Your task to perform on an android device: toggle notification dots Image 0: 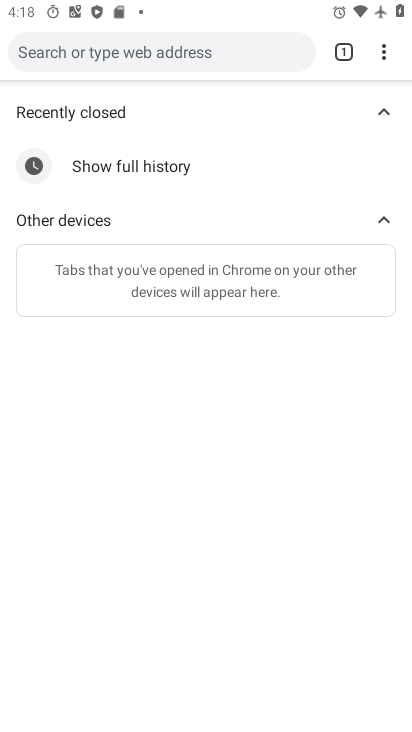
Step 0: press back button
Your task to perform on an android device: toggle notification dots Image 1: 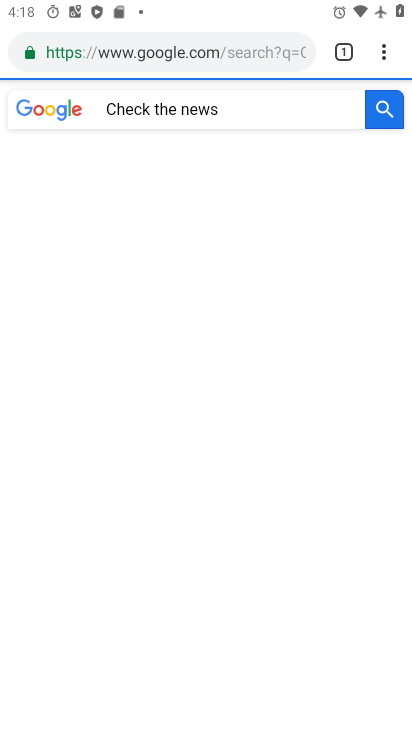
Step 1: press home button
Your task to perform on an android device: toggle notification dots Image 2: 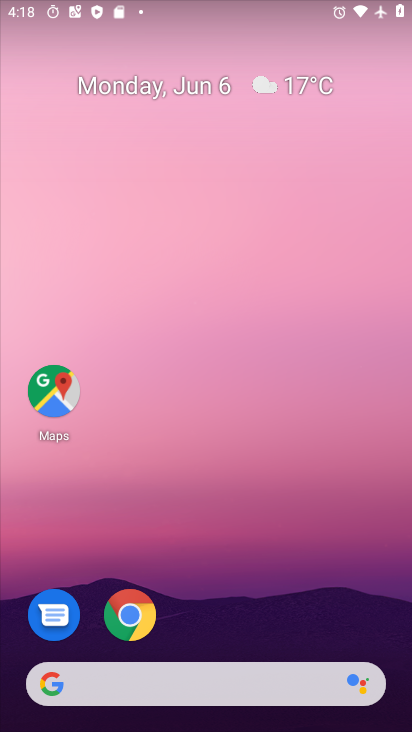
Step 2: drag from (293, 605) to (283, 65)
Your task to perform on an android device: toggle notification dots Image 3: 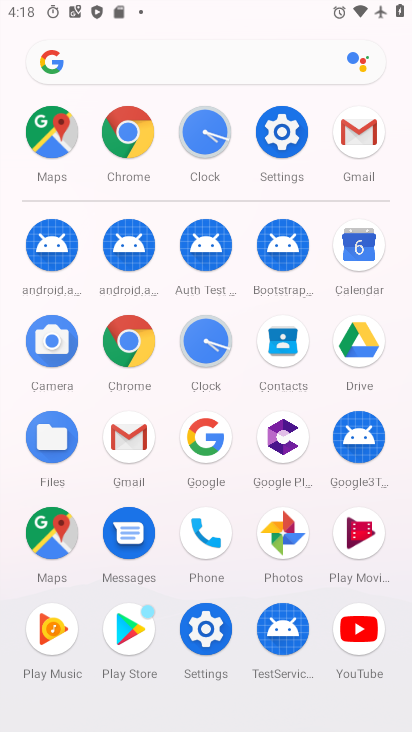
Step 3: click (281, 132)
Your task to perform on an android device: toggle notification dots Image 4: 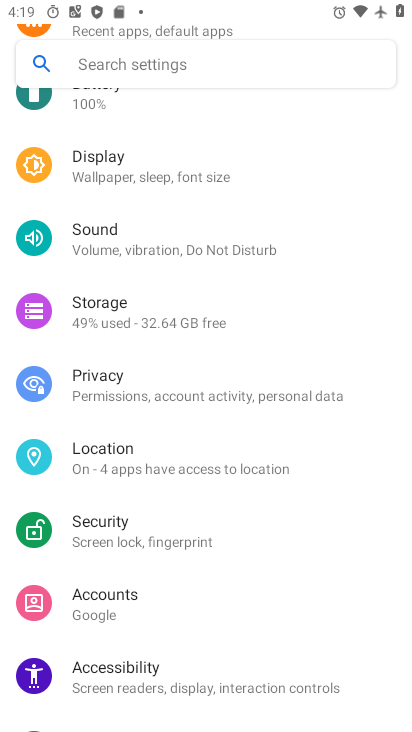
Step 4: drag from (180, 164) to (179, 519)
Your task to perform on an android device: toggle notification dots Image 5: 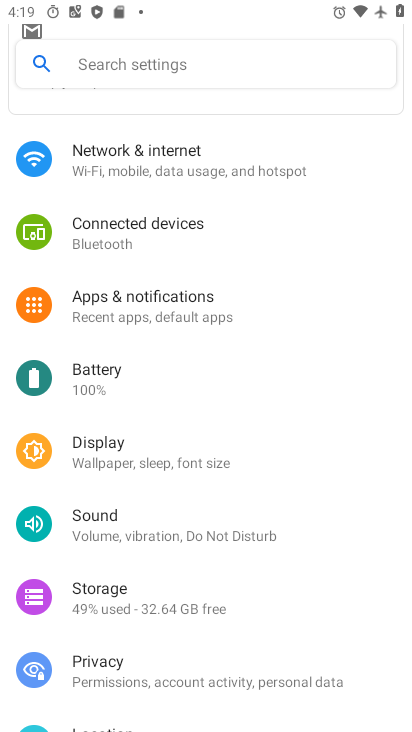
Step 5: click (140, 302)
Your task to perform on an android device: toggle notification dots Image 6: 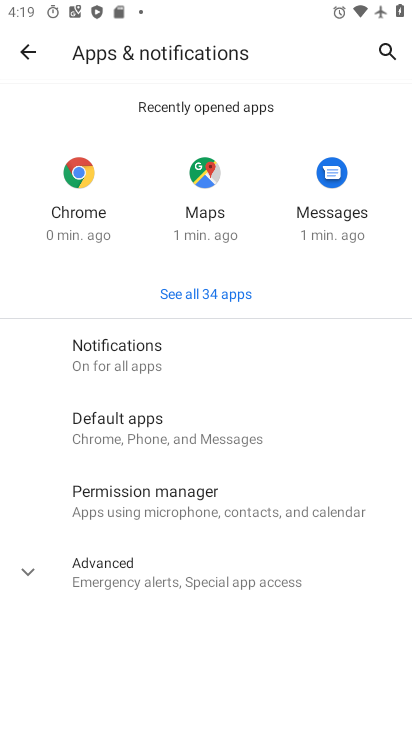
Step 6: click (21, 569)
Your task to perform on an android device: toggle notification dots Image 7: 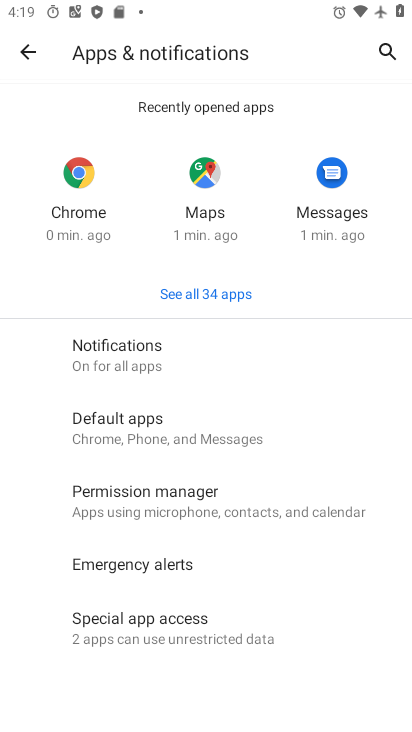
Step 7: click (157, 338)
Your task to perform on an android device: toggle notification dots Image 8: 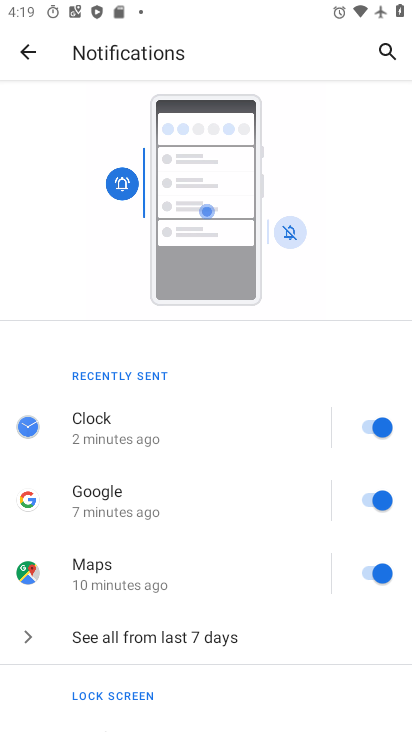
Step 8: drag from (236, 594) to (259, 199)
Your task to perform on an android device: toggle notification dots Image 9: 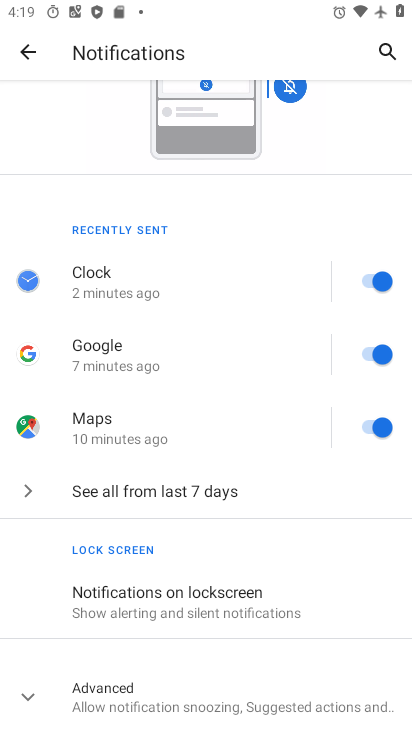
Step 9: click (43, 684)
Your task to perform on an android device: toggle notification dots Image 10: 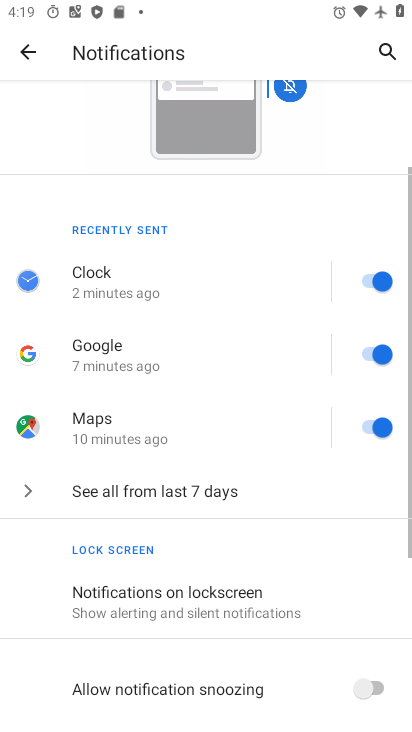
Step 10: drag from (246, 667) to (219, 292)
Your task to perform on an android device: toggle notification dots Image 11: 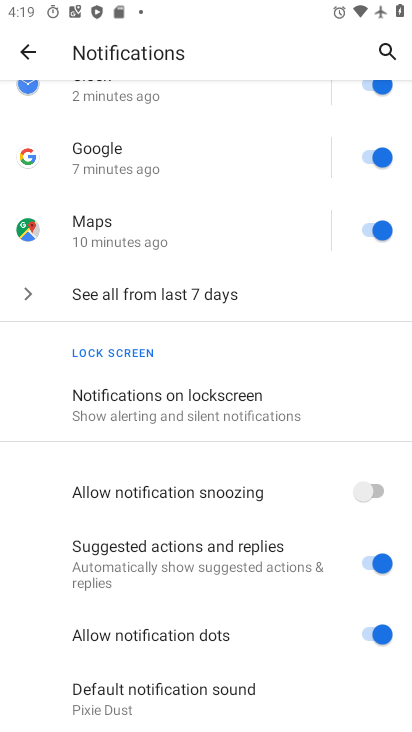
Step 11: drag from (220, 646) to (232, 317)
Your task to perform on an android device: toggle notification dots Image 12: 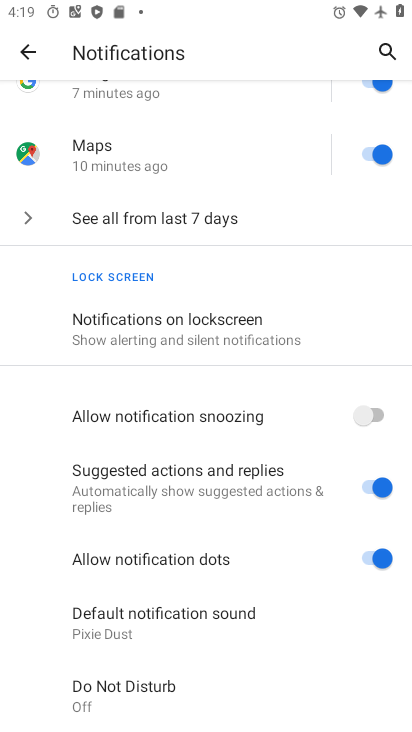
Step 12: click (368, 546)
Your task to perform on an android device: toggle notification dots Image 13: 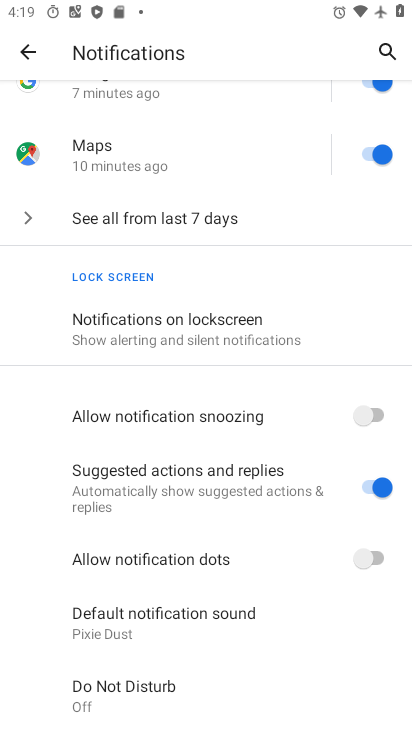
Step 13: task complete